Your task to perform on an android device: open the mobile data screen to see how much data has been used Image 0: 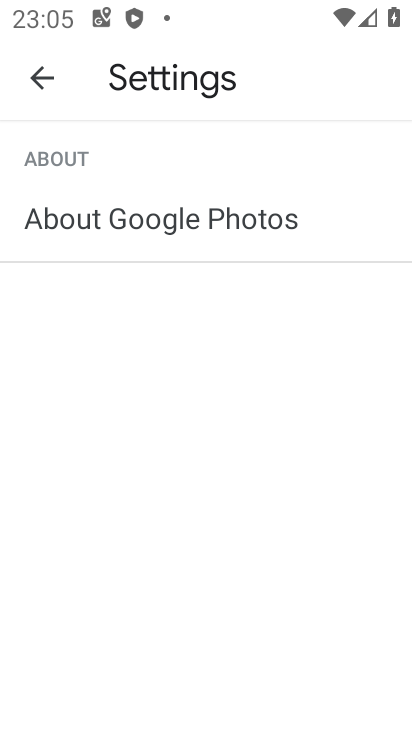
Step 0: press home button
Your task to perform on an android device: open the mobile data screen to see how much data has been used Image 1: 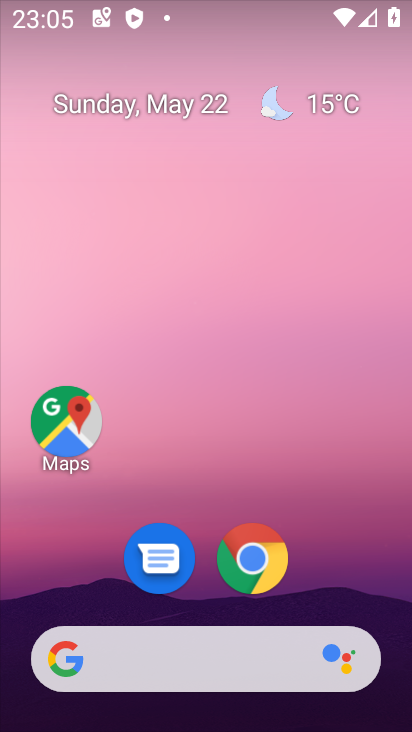
Step 1: drag from (363, 603) to (308, 12)
Your task to perform on an android device: open the mobile data screen to see how much data has been used Image 2: 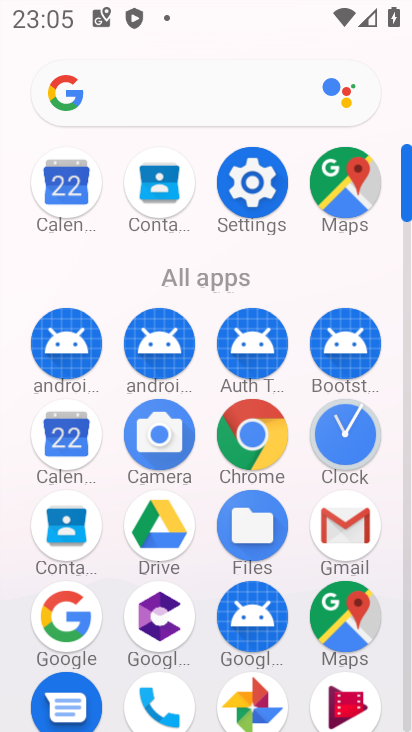
Step 2: click (250, 185)
Your task to perform on an android device: open the mobile data screen to see how much data has been used Image 3: 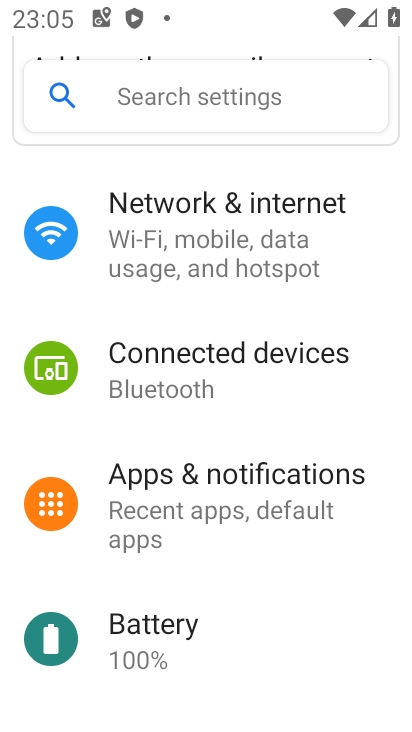
Step 3: click (203, 255)
Your task to perform on an android device: open the mobile data screen to see how much data has been used Image 4: 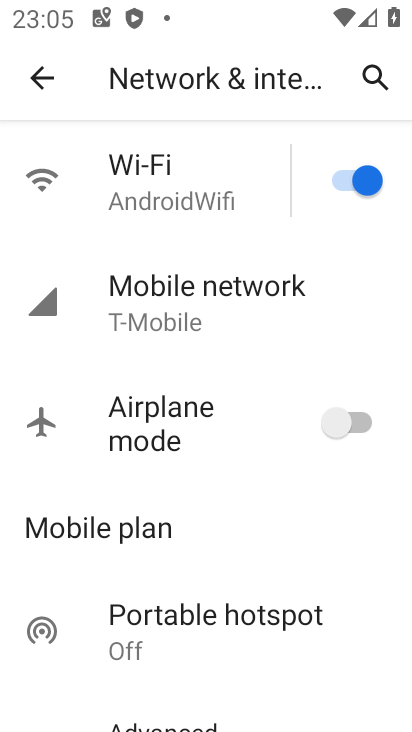
Step 4: click (194, 333)
Your task to perform on an android device: open the mobile data screen to see how much data has been used Image 5: 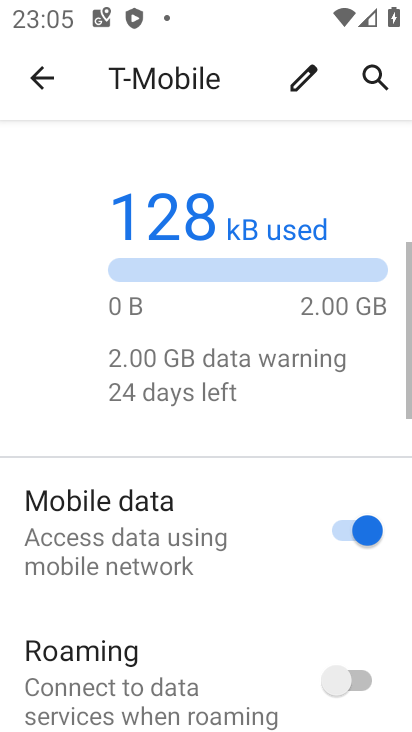
Step 5: drag from (226, 565) to (210, 2)
Your task to perform on an android device: open the mobile data screen to see how much data has been used Image 6: 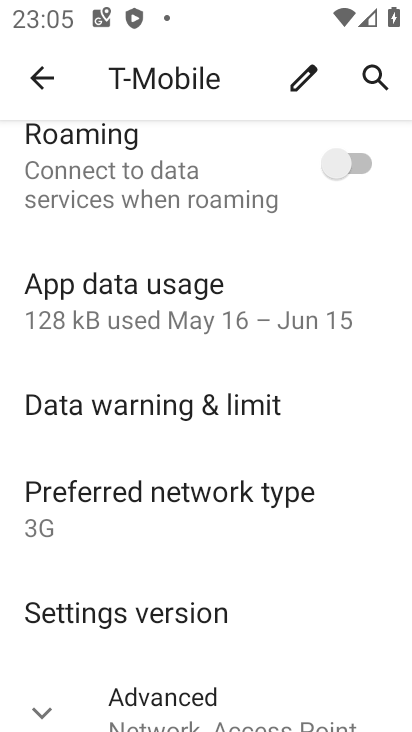
Step 6: click (112, 318)
Your task to perform on an android device: open the mobile data screen to see how much data has been used Image 7: 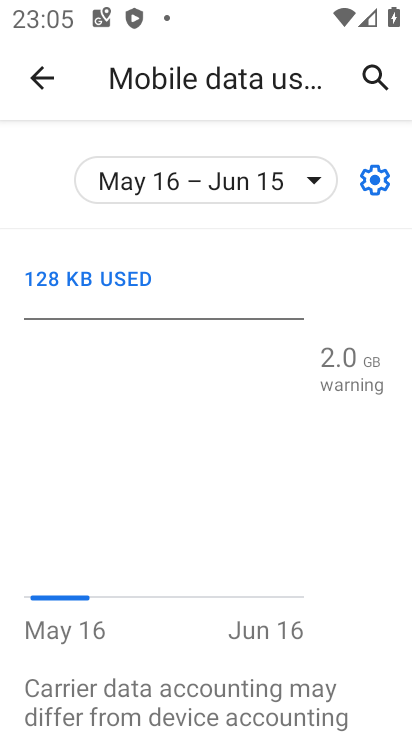
Step 7: task complete